Your task to perform on an android device: turn off smart reply in the gmail app Image 0: 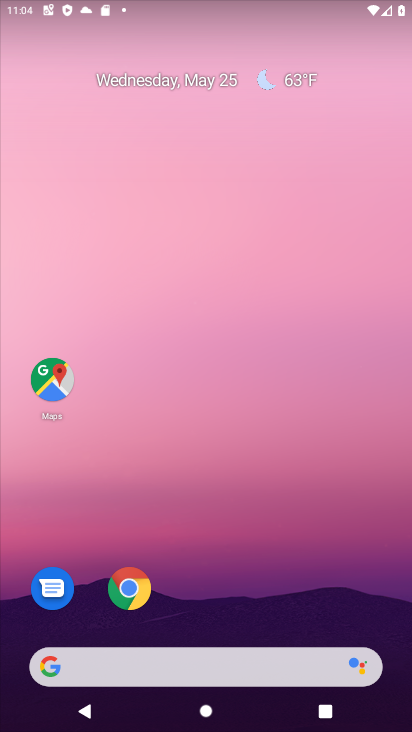
Step 0: drag from (236, 567) to (213, 30)
Your task to perform on an android device: turn off smart reply in the gmail app Image 1: 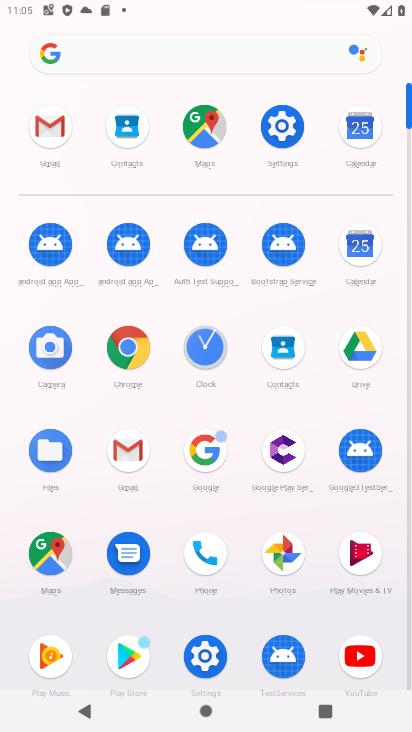
Step 1: click (58, 130)
Your task to perform on an android device: turn off smart reply in the gmail app Image 2: 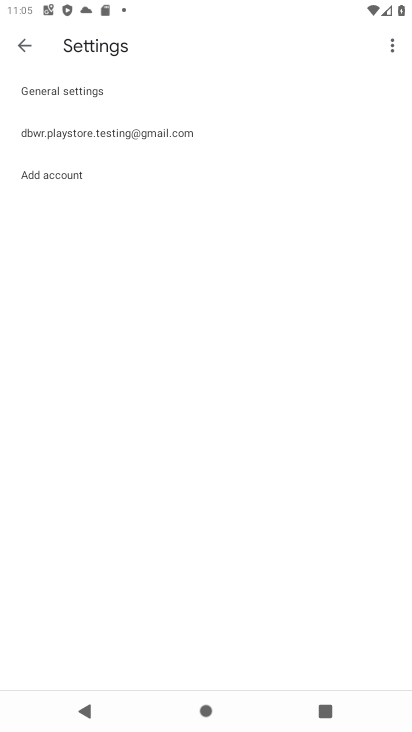
Step 2: click (91, 132)
Your task to perform on an android device: turn off smart reply in the gmail app Image 3: 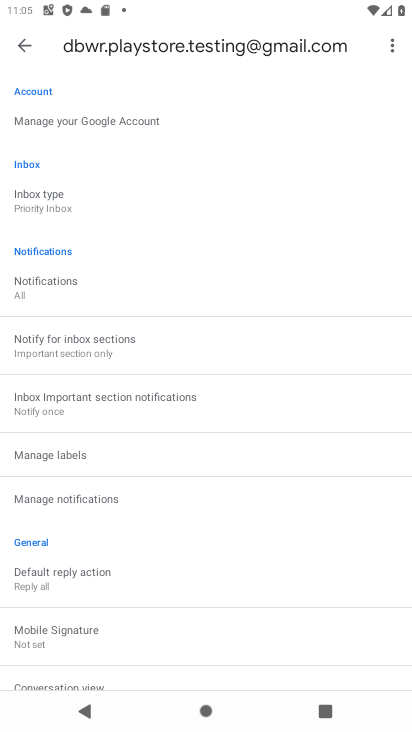
Step 3: drag from (206, 575) to (211, 131)
Your task to perform on an android device: turn off smart reply in the gmail app Image 4: 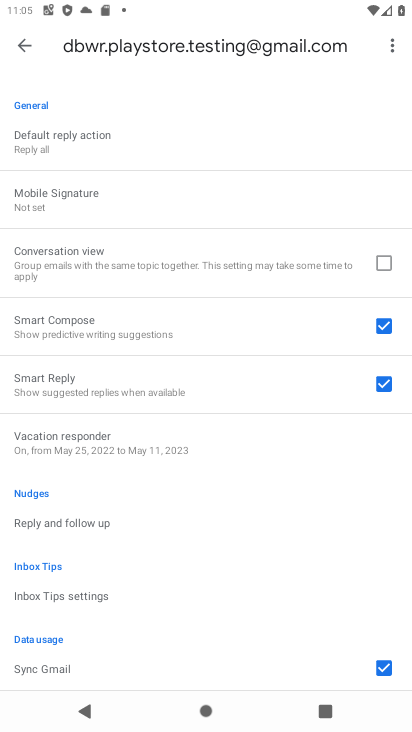
Step 4: click (384, 381)
Your task to perform on an android device: turn off smart reply in the gmail app Image 5: 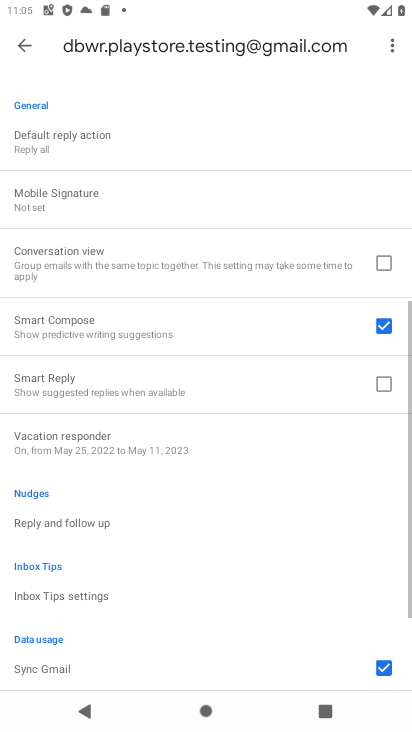
Step 5: task complete